Your task to perform on an android device: see tabs open on other devices in the chrome app Image 0: 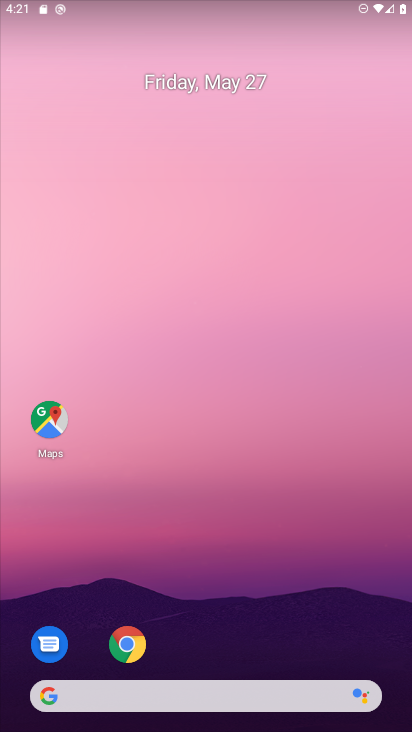
Step 0: click (130, 641)
Your task to perform on an android device: see tabs open on other devices in the chrome app Image 1: 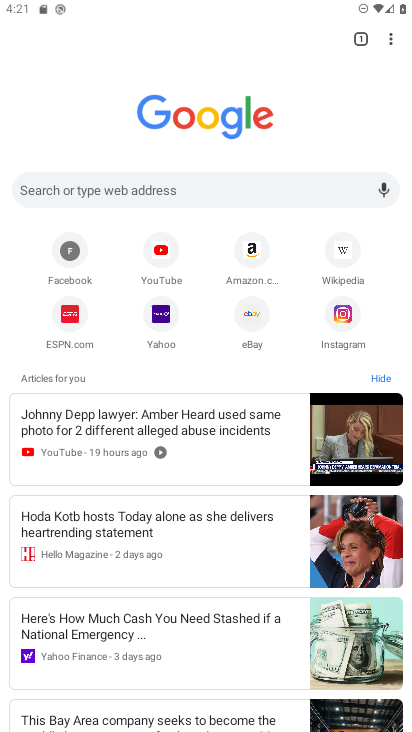
Step 1: click (398, 48)
Your task to perform on an android device: see tabs open on other devices in the chrome app Image 2: 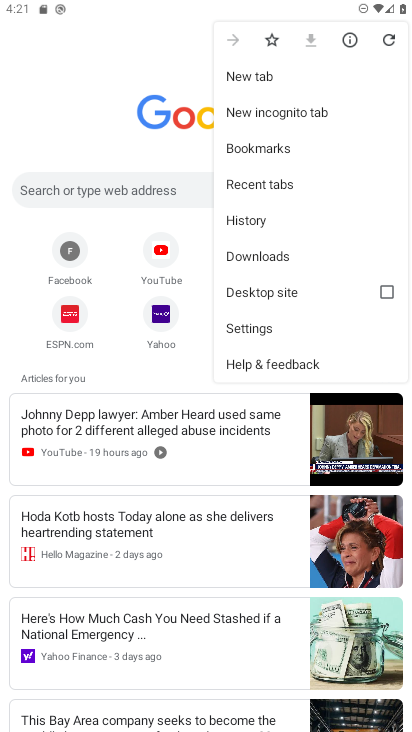
Step 2: click (242, 183)
Your task to perform on an android device: see tabs open on other devices in the chrome app Image 3: 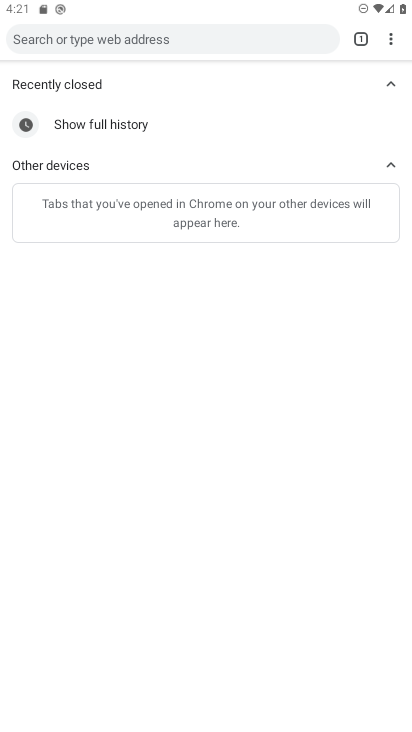
Step 3: task complete